Your task to perform on an android device: Open calendar and show me the third week of next month Image 0: 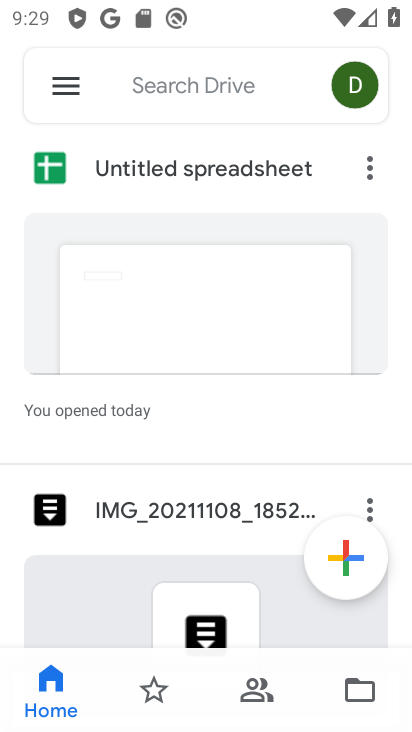
Step 0: press home button
Your task to perform on an android device: Open calendar and show me the third week of next month Image 1: 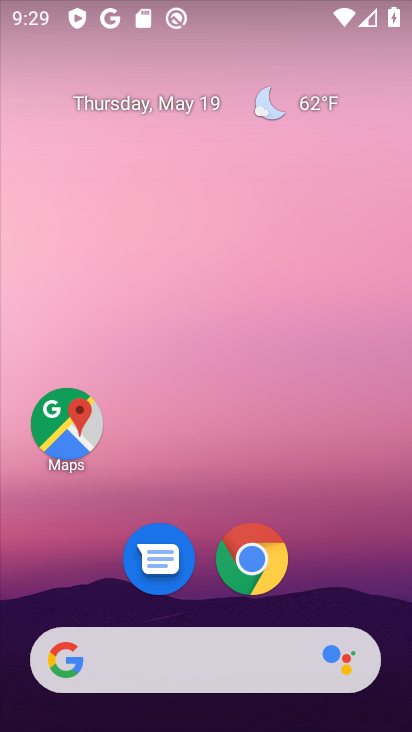
Step 1: drag from (356, 482) to (357, 61)
Your task to perform on an android device: Open calendar and show me the third week of next month Image 2: 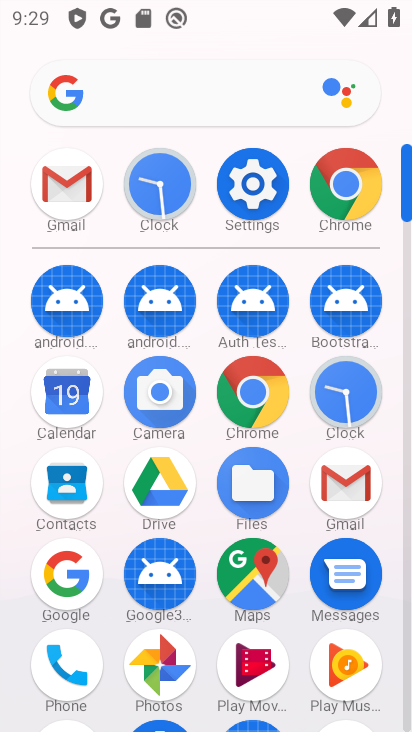
Step 2: click (64, 384)
Your task to perform on an android device: Open calendar and show me the third week of next month Image 3: 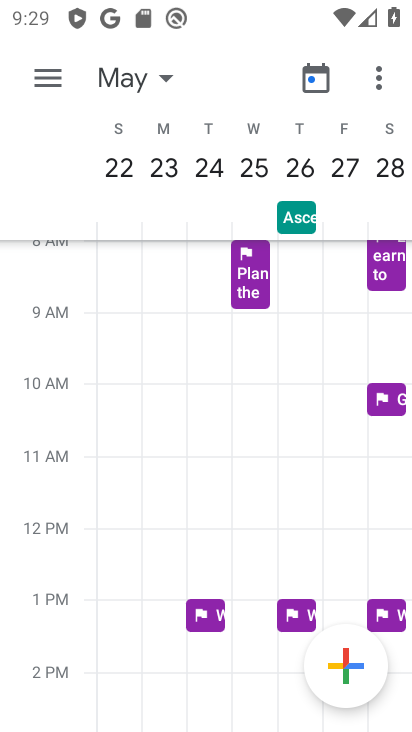
Step 3: click (97, 73)
Your task to perform on an android device: Open calendar and show me the third week of next month Image 4: 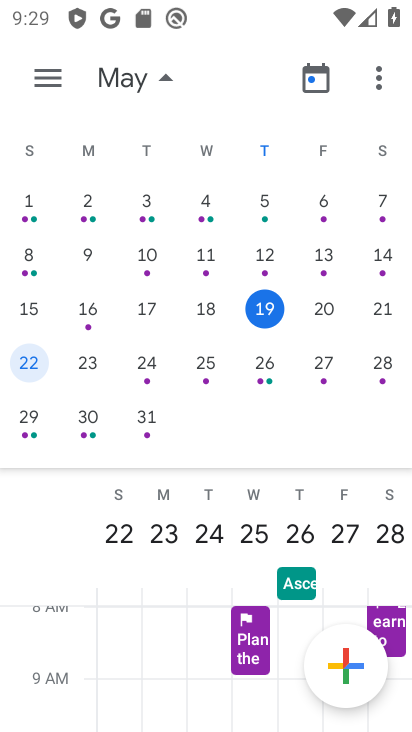
Step 4: drag from (375, 318) to (8, 271)
Your task to perform on an android device: Open calendar and show me the third week of next month Image 5: 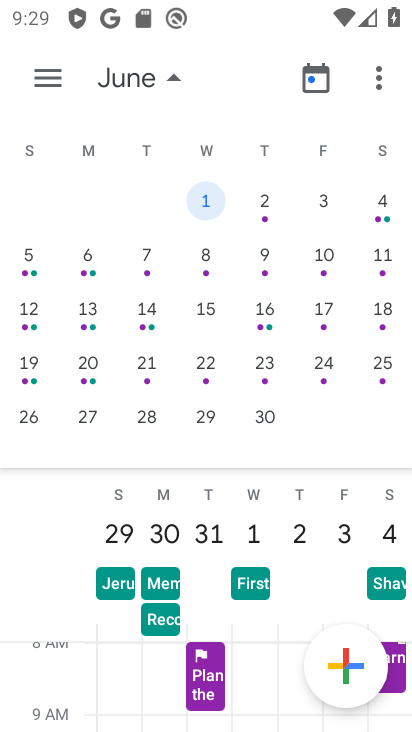
Step 5: click (24, 367)
Your task to perform on an android device: Open calendar and show me the third week of next month Image 6: 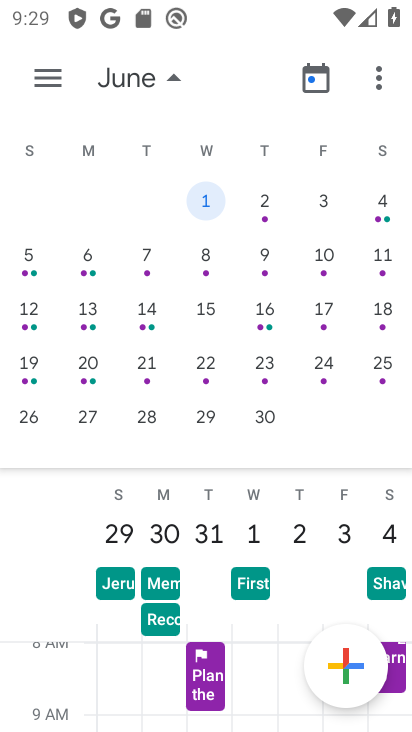
Step 6: click (31, 360)
Your task to perform on an android device: Open calendar and show me the third week of next month Image 7: 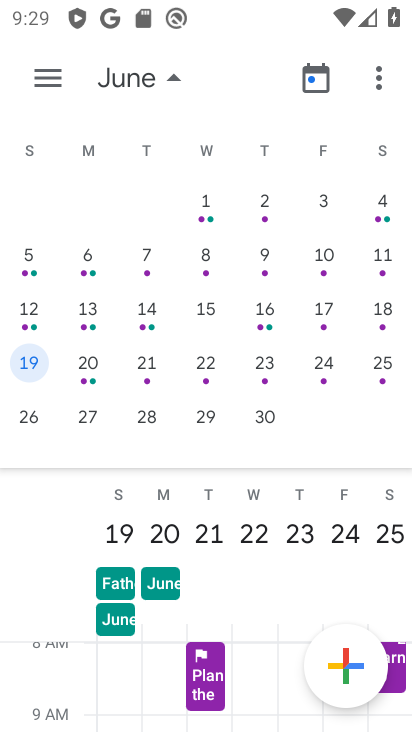
Step 7: task complete